Your task to perform on an android device: Open the calendar and show me this week's events? Image 0: 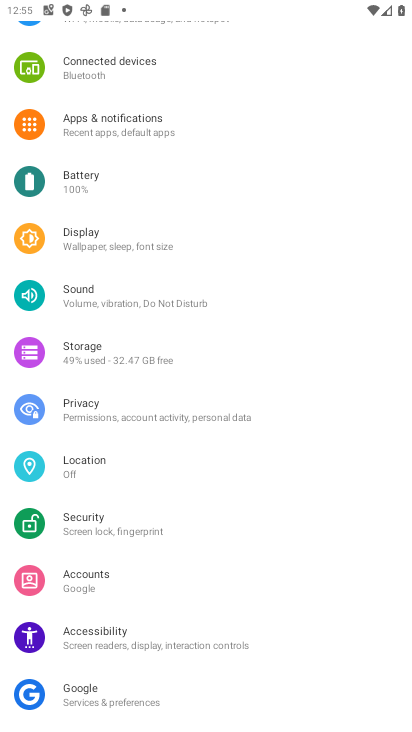
Step 0: press home button
Your task to perform on an android device: Open the calendar and show me this week's events? Image 1: 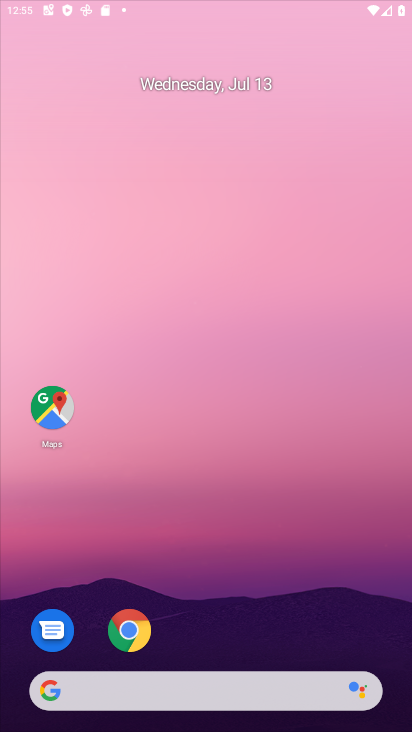
Step 1: drag from (388, 690) to (145, 42)
Your task to perform on an android device: Open the calendar and show me this week's events? Image 2: 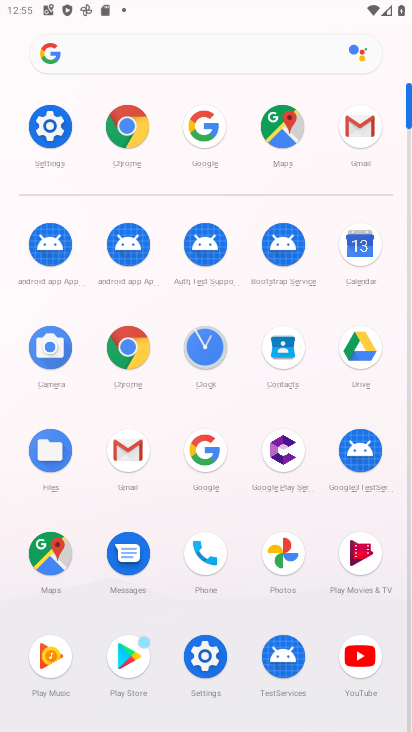
Step 2: click (346, 240)
Your task to perform on an android device: Open the calendar and show me this week's events? Image 3: 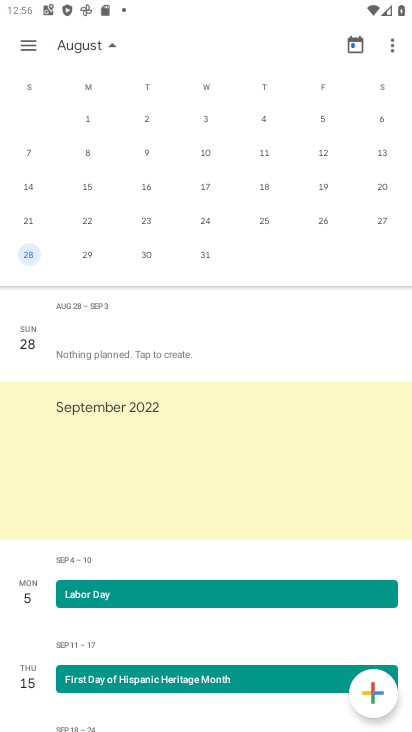
Step 3: task complete